Your task to perform on an android device: open chrome privacy settings Image 0: 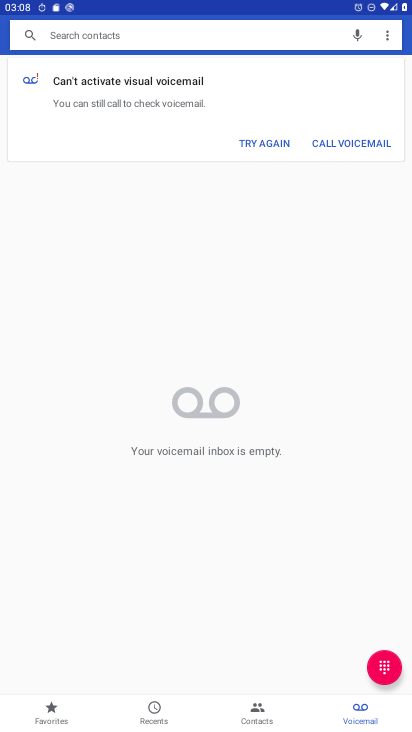
Step 0: press home button
Your task to perform on an android device: open chrome privacy settings Image 1: 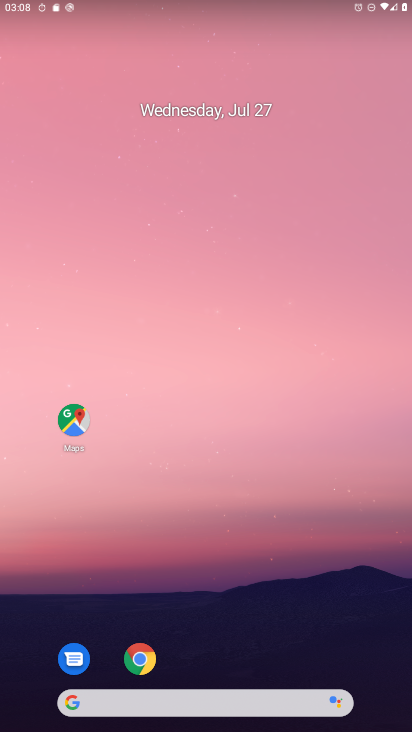
Step 1: drag from (312, 606) to (272, 124)
Your task to perform on an android device: open chrome privacy settings Image 2: 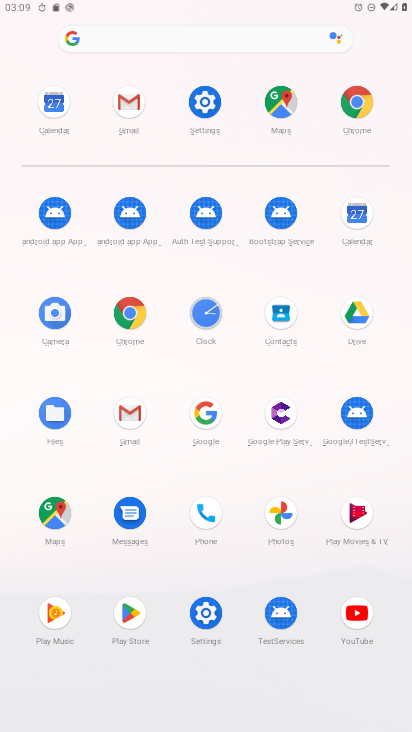
Step 2: click (353, 101)
Your task to perform on an android device: open chrome privacy settings Image 3: 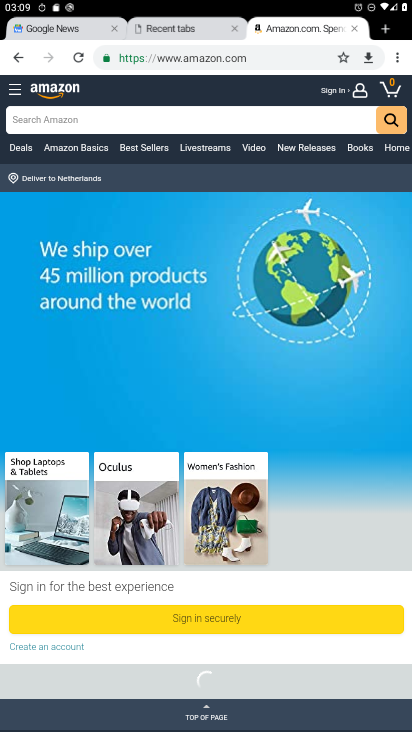
Step 3: drag from (398, 51) to (287, 382)
Your task to perform on an android device: open chrome privacy settings Image 4: 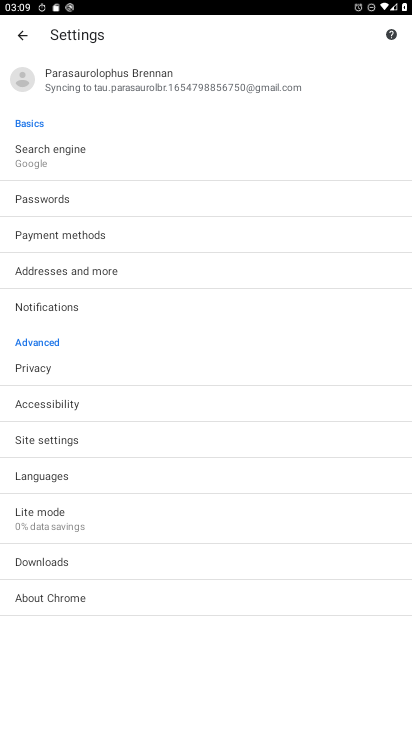
Step 4: click (60, 370)
Your task to perform on an android device: open chrome privacy settings Image 5: 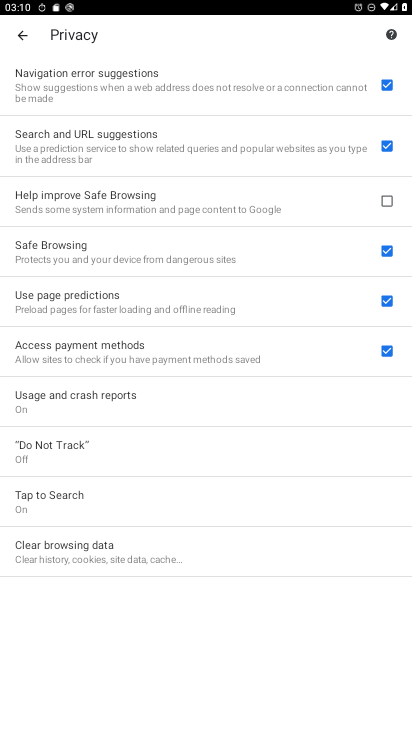
Step 5: task complete